Your task to perform on an android device: Go to network settings Image 0: 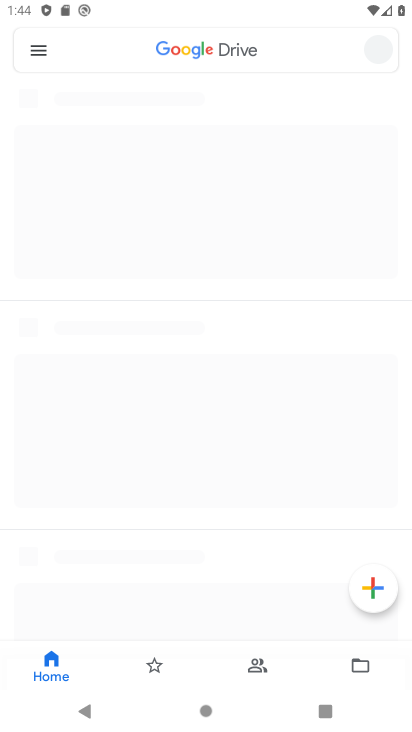
Step 0: drag from (309, 709) to (180, 12)
Your task to perform on an android device: Go to network settings Image 1: 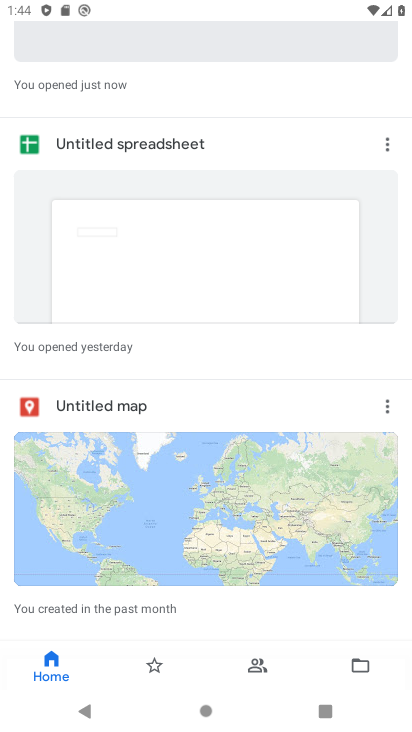
Step 1: press back button
Your task to perform on an android device: Go to network settings Image 2: 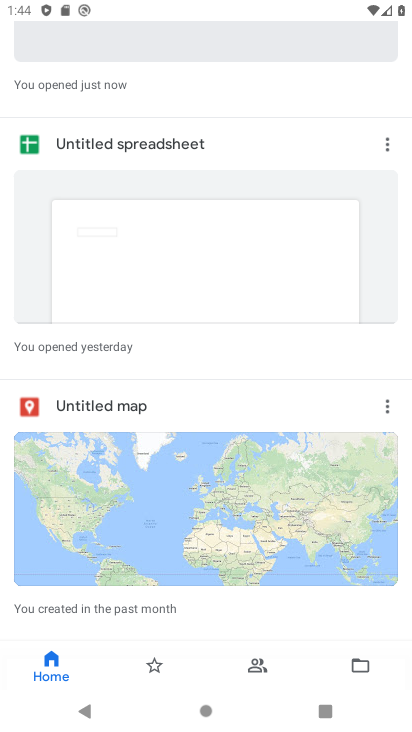
Step 2: press back button
Your task to perform on an android device: Go to network settings Image 3: 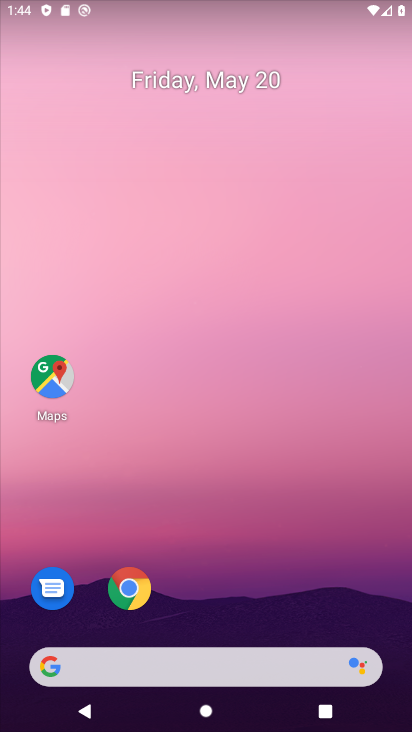
Step 3: drag from (277, 614) to (146, 35)
Your task to perform on an android device: Go to network settings Image 4: 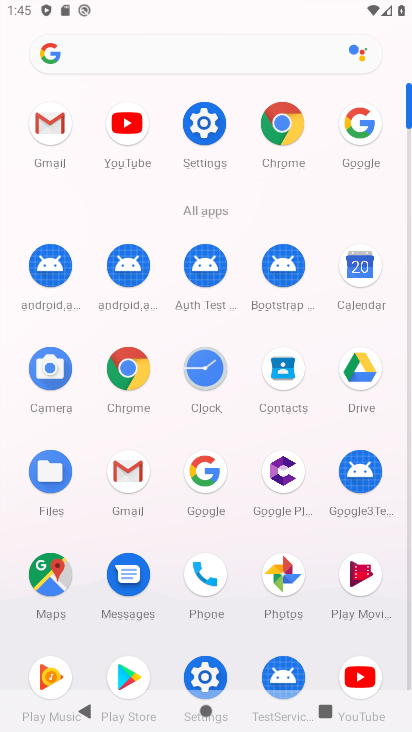
Step 4: click (205, 129)
Your task to perform on an android device: Go to network settings Image 5: 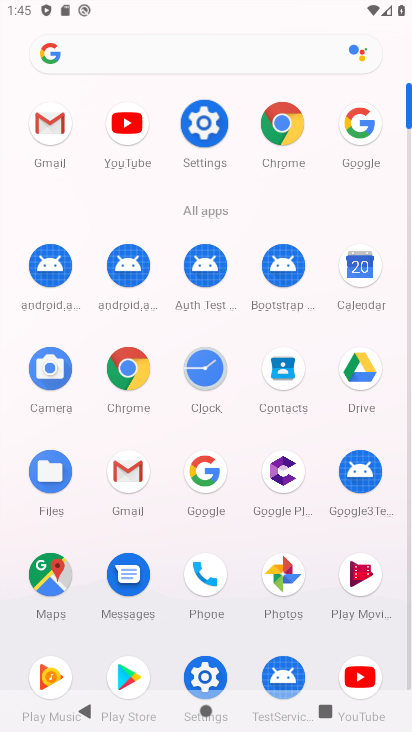
Step 5: click (205, 129)
Your task to perform on an android device: Go to network settings Image 6: 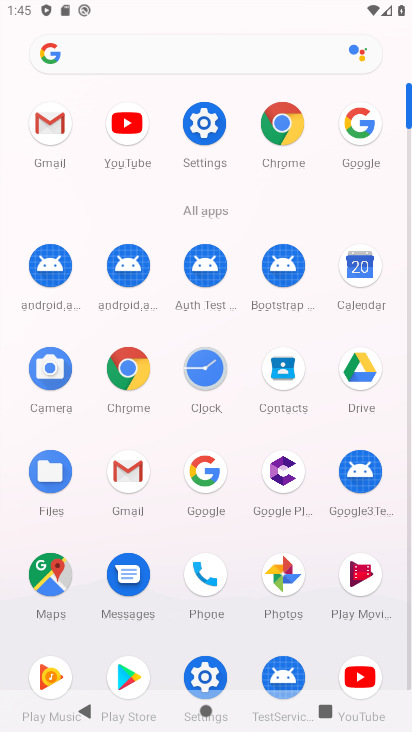
Step 6: click (205, 129)
Your task to perform on an android device: Go to network settings Image 7: 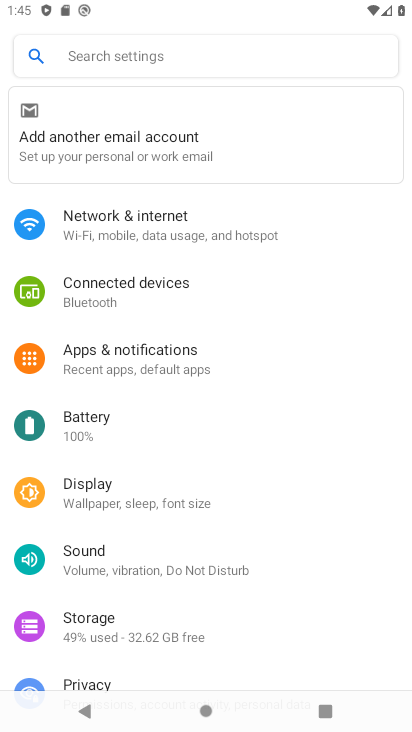
Step 7: click (112, 225)
Your task to perform on an android device: Go to network settings Image 8: 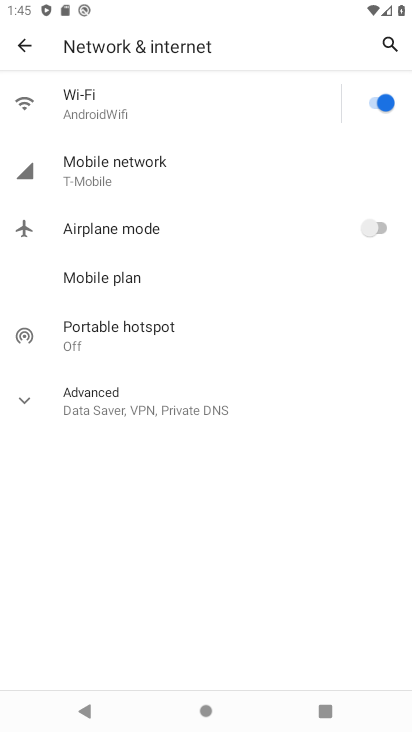
Step 8: click (102, 170)
Your task to perform on an android device: Go to network settings Image 9: 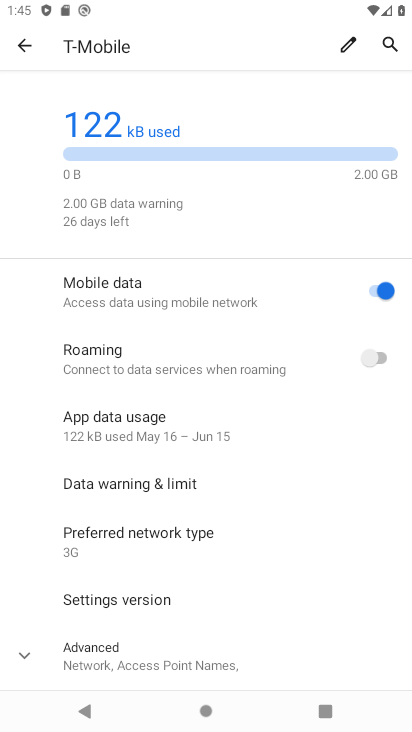
Step 9: task complete